Your task to perform on an android device: see creations saved in the google photos Image 0: 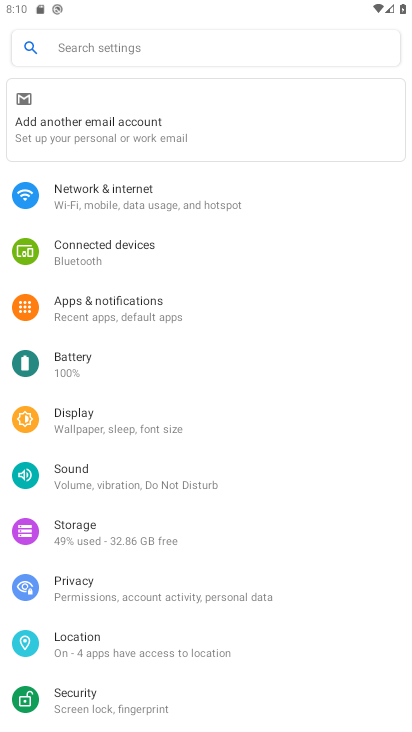
Step 0: press home button
Your task to perform on an android device: see creations saved in the google photos Image 1: 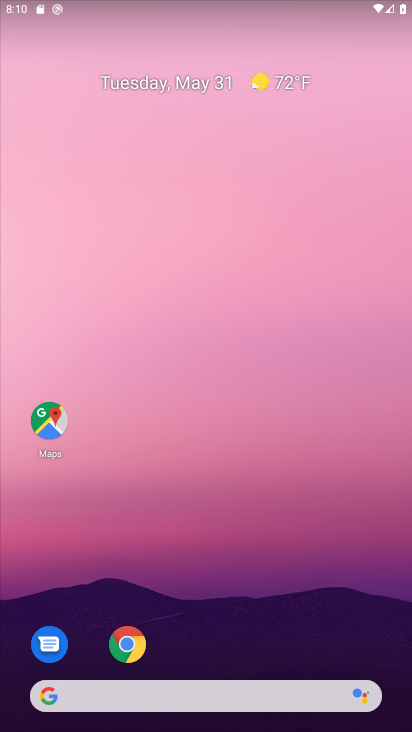
Step 1: drag from (193, 663) to (206, 61)
Your task to perform on an android device: see creations saved in the google photos Image 2: 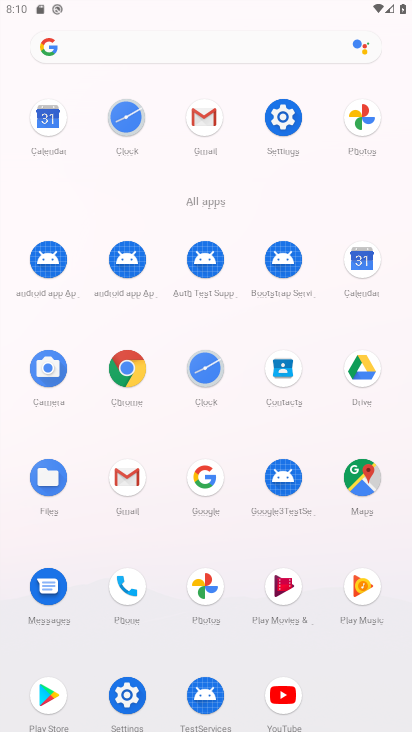
Step 2: click (362, 113)
Your task to perform on an android device: see creations saved in the google photos Image 3: 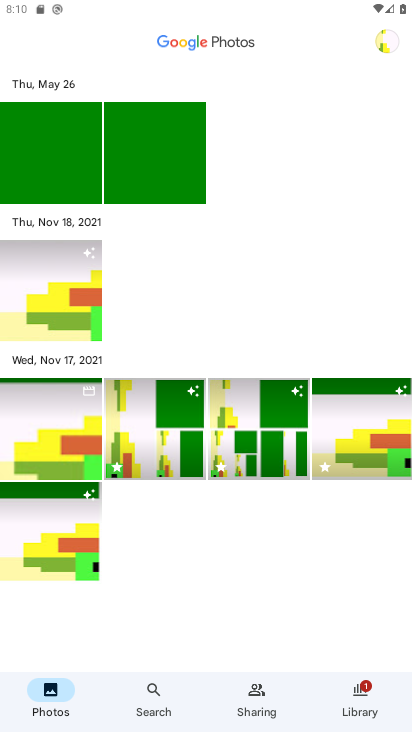
Step 3: click (155, 688)
Your task to perform on an android device: see creations saved in the google photos Image 4: 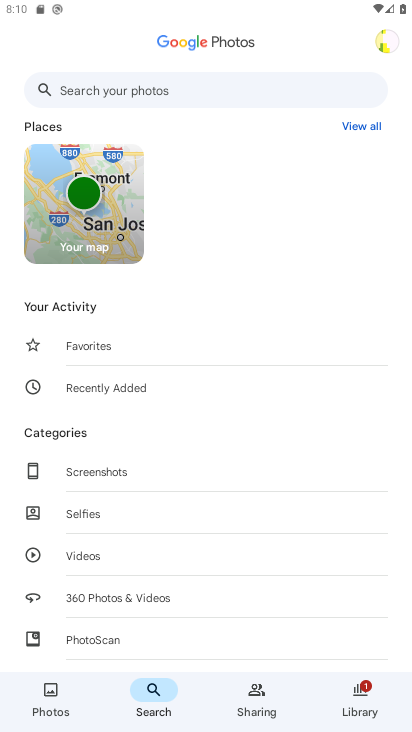
Step 4: drag from (143, 571) to (166, 181)
Your task to perform on an android device: see creations saved in the google photos Image 5: 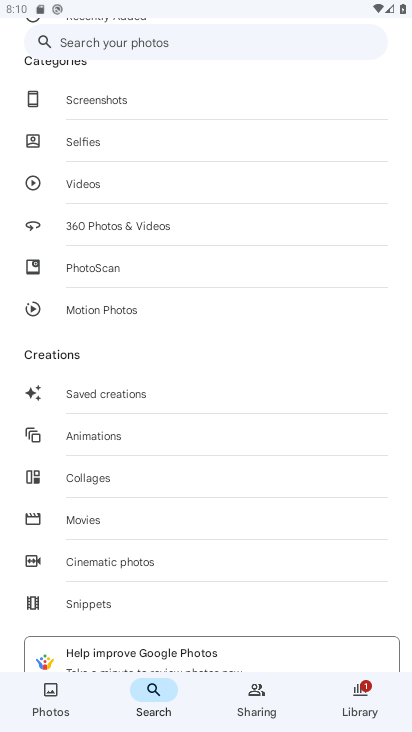
Step 5: click (147, 395)
Your task to perform on an android device: see creations saved in the google photos Image 6: 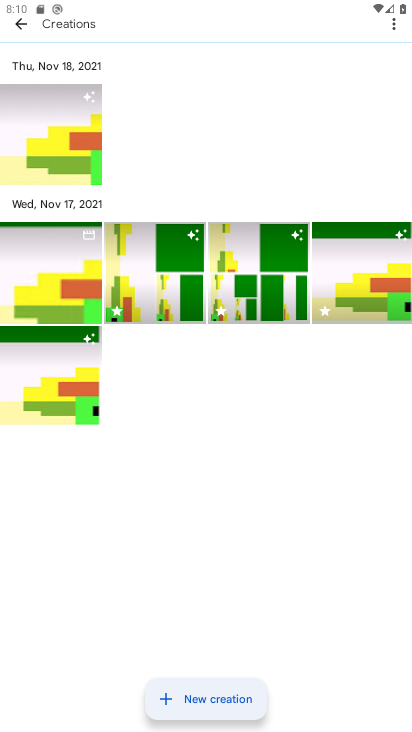
Step 6: task complete